Your task to perform on an android device: Go to Yahoo.com Image 0: 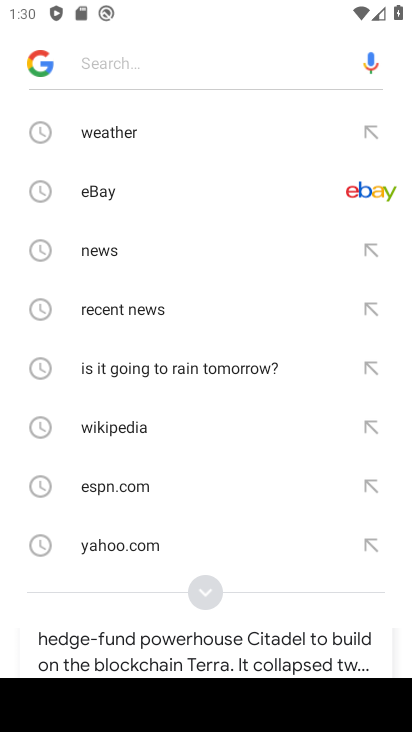
Step 0: press home button
Your task to perform on an android device: Go to Yahoo.com Image 1: 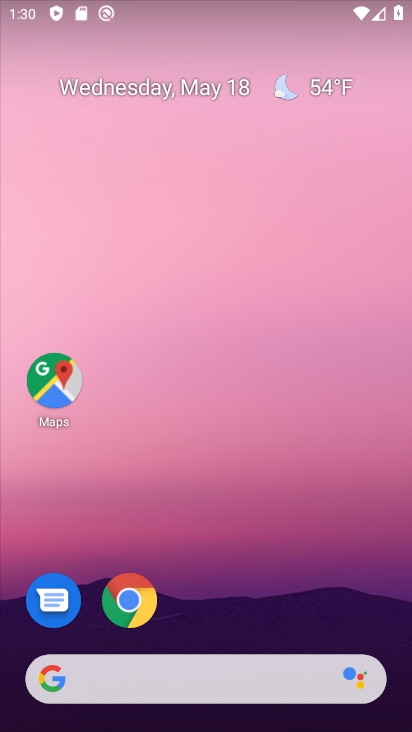
Step 1: click (192, 681)
Your task to perform on an android device: Go to Yahoo.com Image 2: 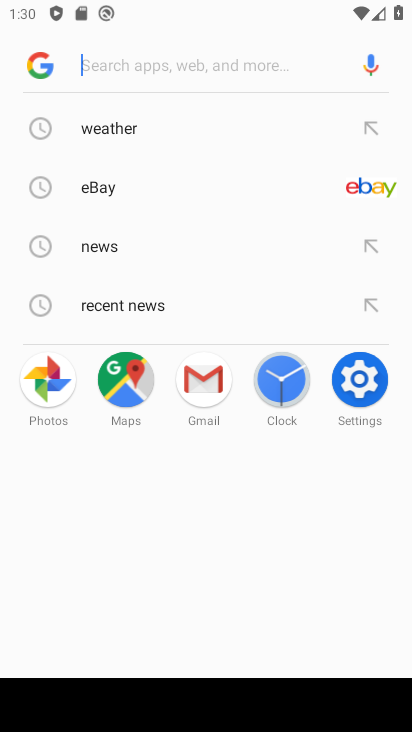
Step 2: click (36, 58)
Your task to perform on an android device: Go to Yahoo.com Image 3: 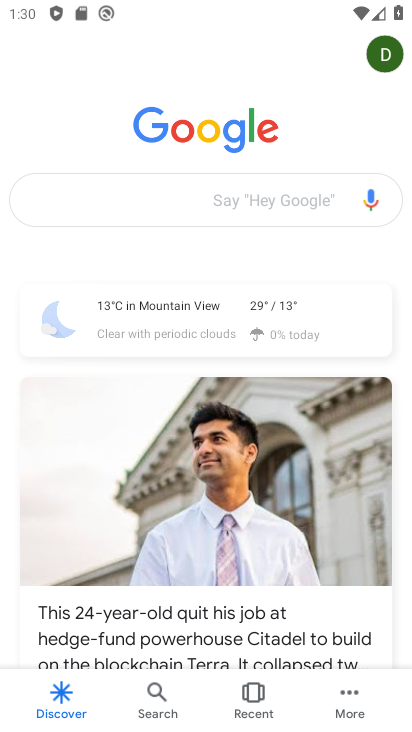
Step 3: click (138, 196)
Your task to perform on an android device: Go to Yahoo.com Image 4: 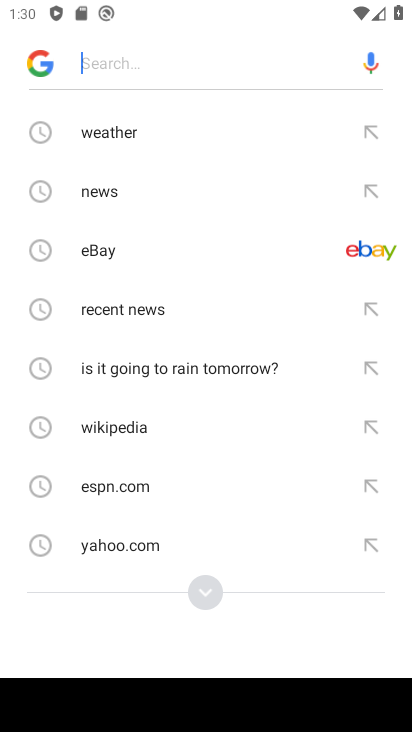
Step 4: click (110, 549)
Your task to perform on an android device: Go to Yahoo.com Image 5: 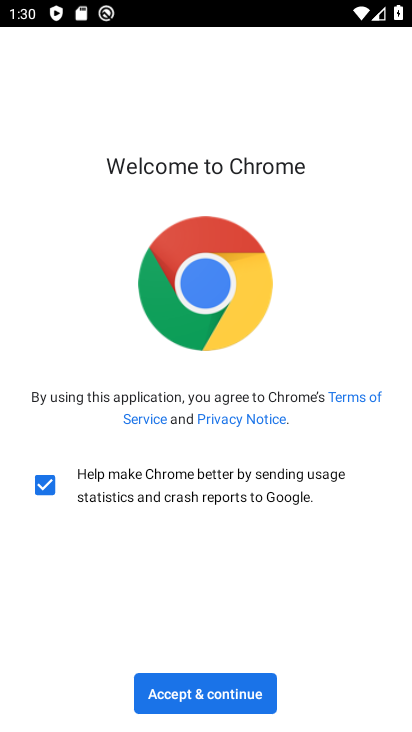
Step 5: click (230, 701)
Your task to perform on an android device: Go to Yahoo.com Image 6: 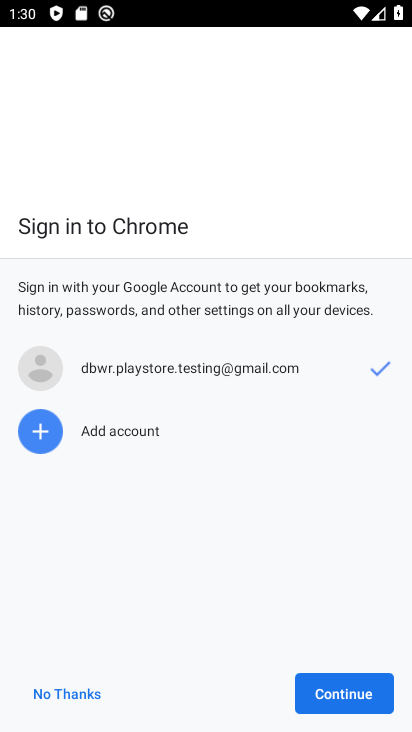
Step 6: click (338, 692)
Your task to perform on an android device: Go to Yahoo.com Image 7: 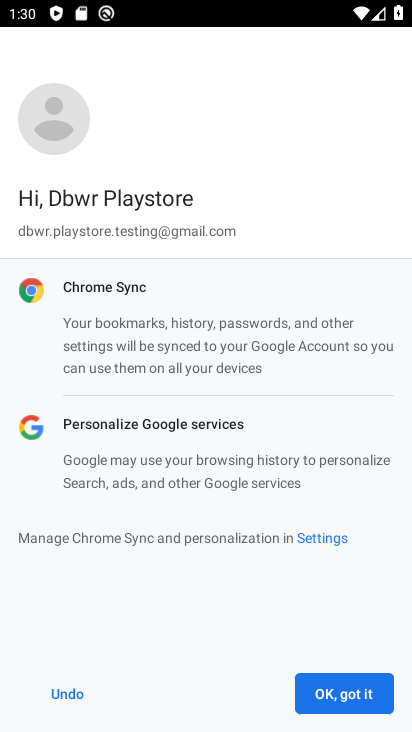
Step 7: click (345, 689)
Your task to perform on an android device: Go to Yahoo.com Image 8: 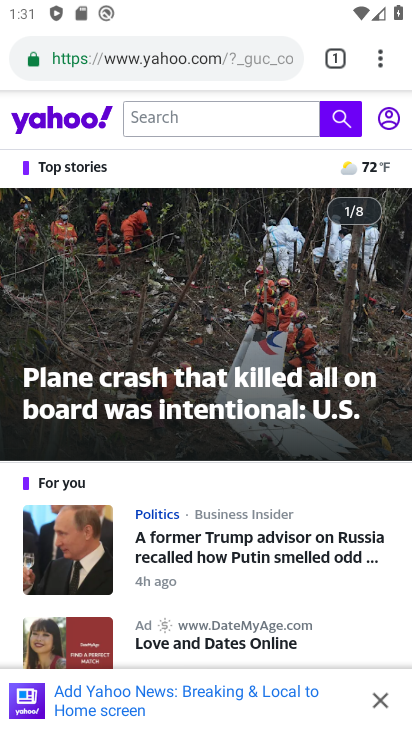
Step 8: task complete